Your task to perform on an android device: Open Chrome and go to settings Image 0: 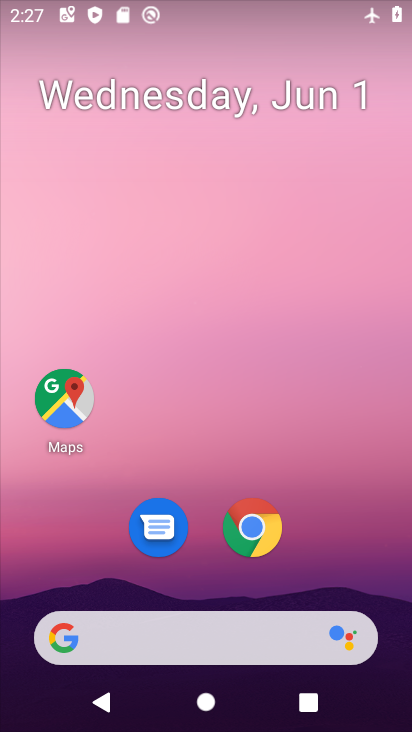
Step 0: drag from (343, 547) to (336, 226)
Your task to perform on an android device: Open Chrome and go to settings Image 1: 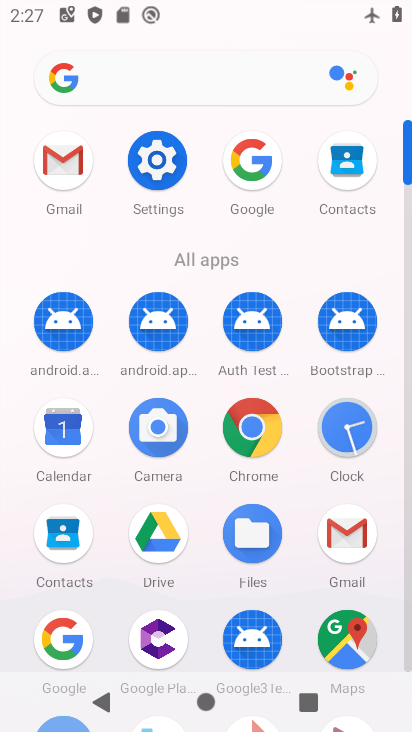
Step 1: click (252, 425)
Your task to perform on an android device: Open Chrome and go to settings Image 2: 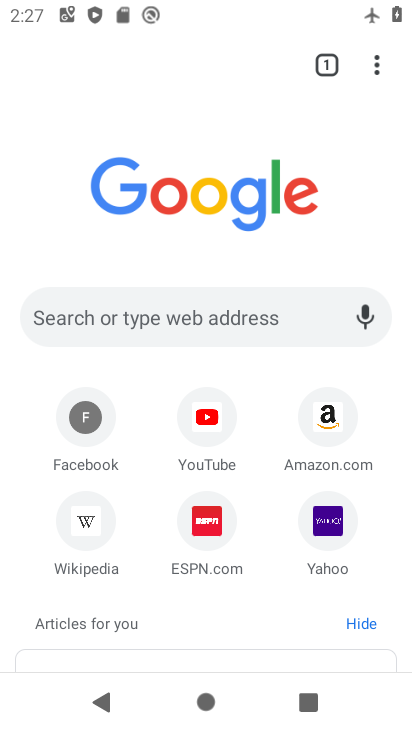
Step 2: click (377, 65)
Your task to perform on an android device: Open Chrome and go to settings Image 3: 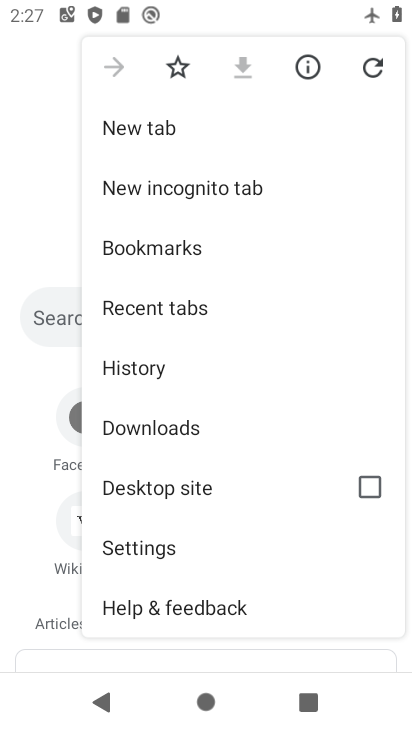
Step 3: click (147, 551)
Your task to perform on an android device: Open Chrome and go to settings Image 4: 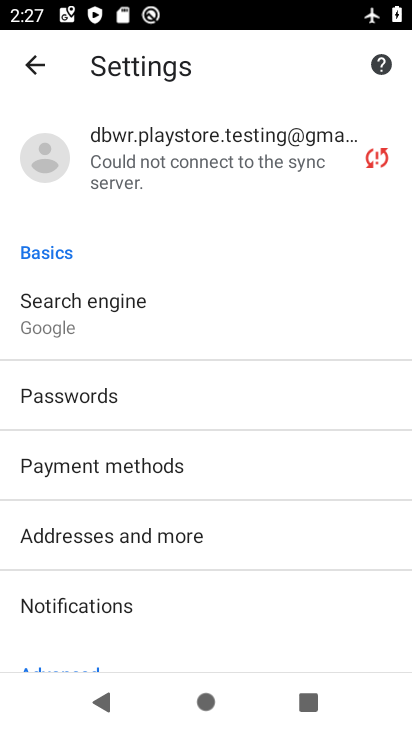
Step 4: task complete